Your task to perform on an android device: toggle pop-ups in chrome Image 0: 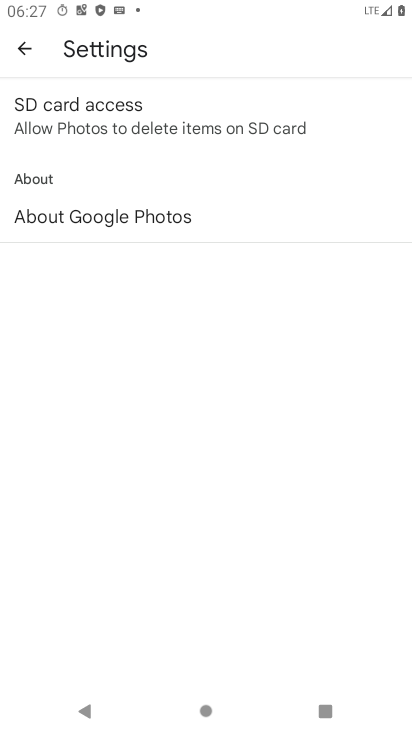
Step 0: press home button
Your task to perform on an android device: toggle pop-ups in chrome Image 1: 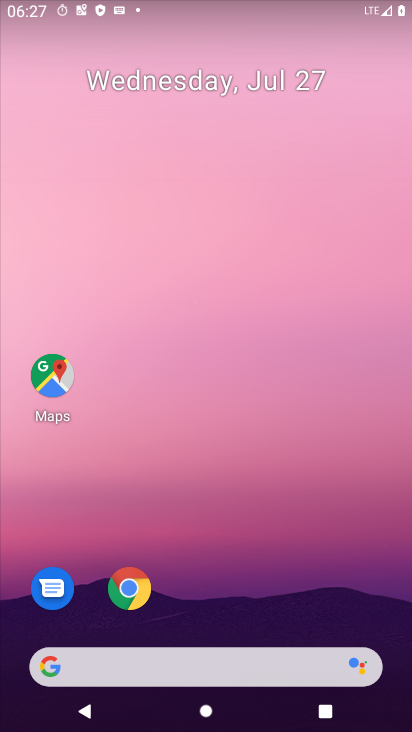
Step 1: drag from (124, 665) to (242, 5)
Your task to perform on an android device: toggle pop-ups in chrome Image 2: 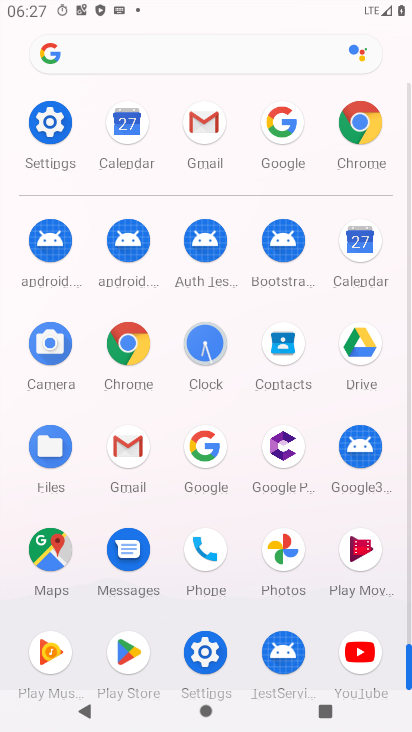
Step 2: click (126, 335)
Your task to perform on an android device: toggle pop-ups in chrome Image 3: 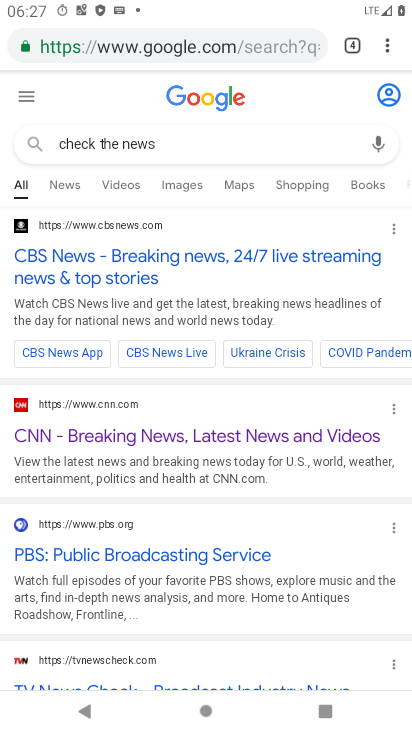
Step 3: click (383, 49)
Your task to perform on an android device: toggle pop-ups in chrome Image 4: 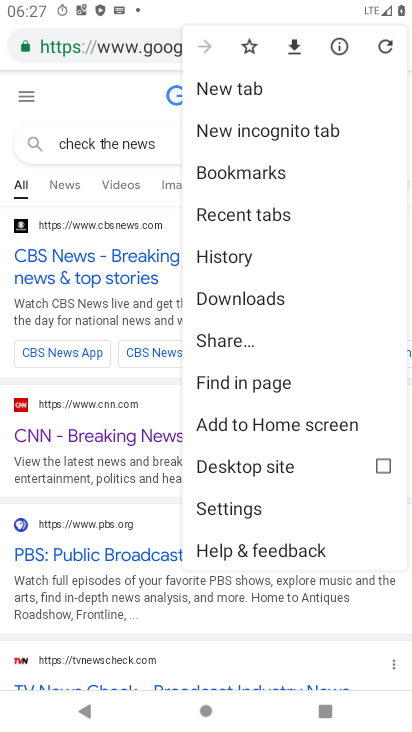
Step 4: click (258, 511)
Your task to perform on an android device: toggle pop-ups in chrome Image 5: 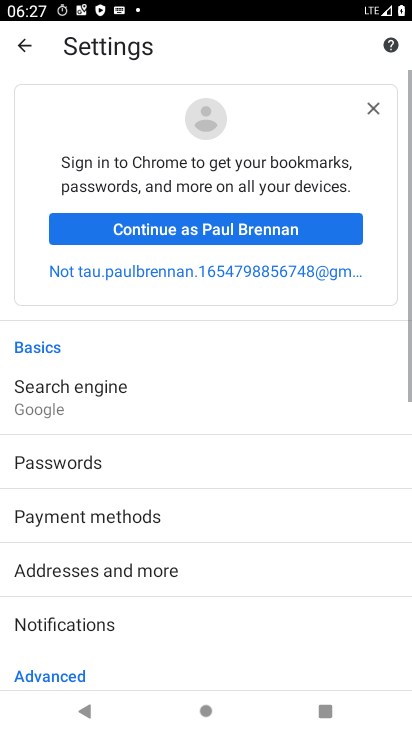
Step 5: drag from (138, 665) to (213, 203)
Your task to perform on an android device: toggle pop-ups in chrome Image 6: 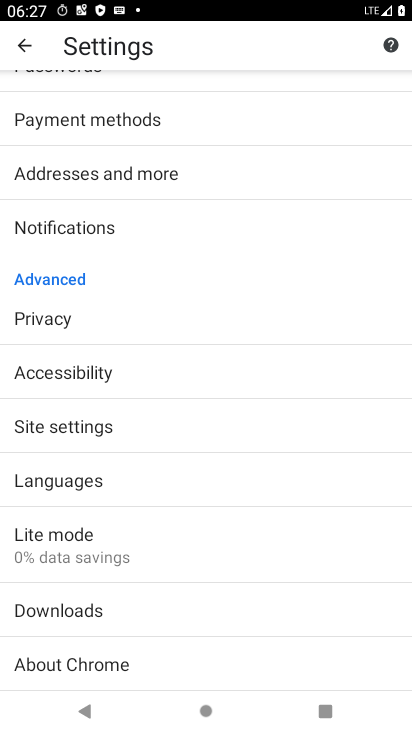
Step 6: click (133, 539)
Your task to perform on an android device: toggle pop-ups in chrome Image 7: 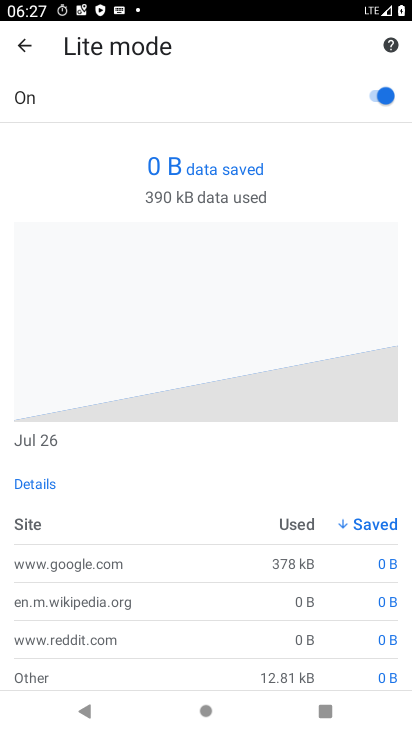
Step 7: press back button
Your task to perform on an android device: toggle pop-ups in chrome Image 8: 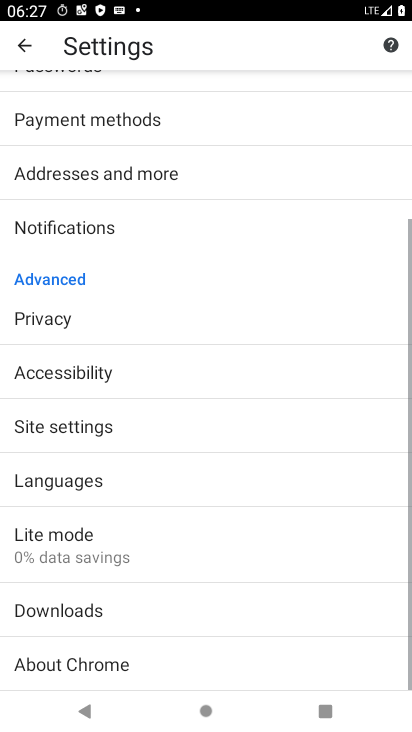
Step 8: click (118, 485)
Your task to perform on an android device: toggle pop-ups in chrome Image 9: 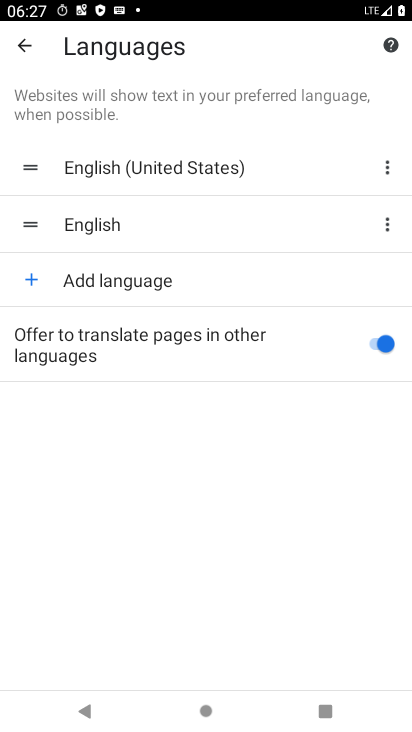
Step 9: click (374, 343)
Your task to perform on an android device: toggle pop-ups in chrome Image 10: 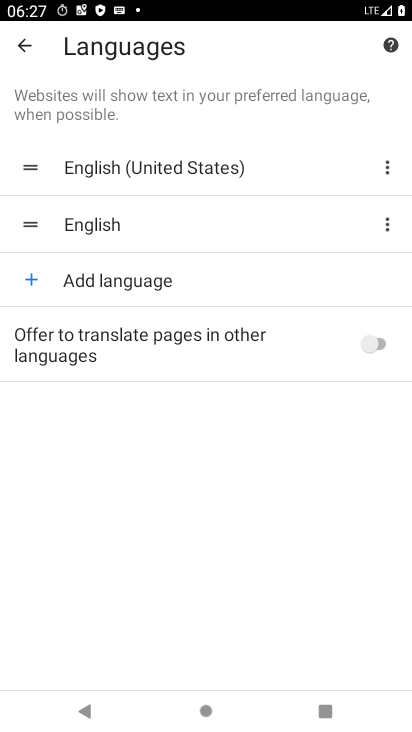
Step 10: task complete